Your task to perform on an android device: open wifi settings Image 0: 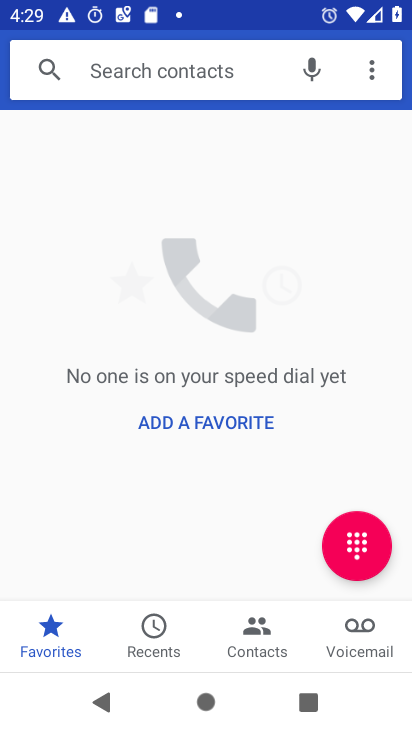
Step 0: press home button
Your task to perform on an android device: open wifi settings Image 1: 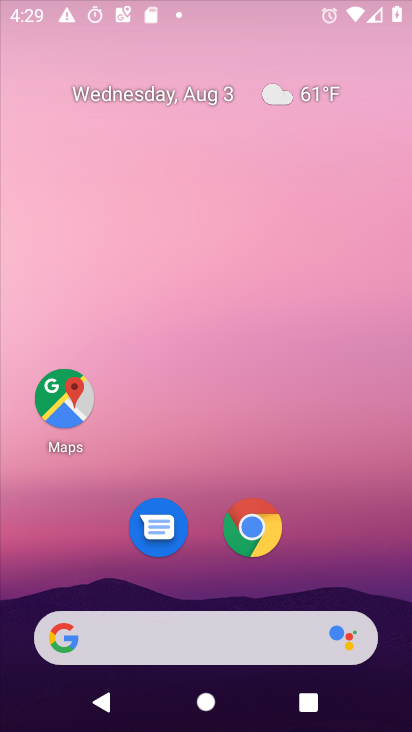
Step 1: drag from (306, 540) to (365, 58)
Your task to perform on an android device: open wifi settings Image 2: 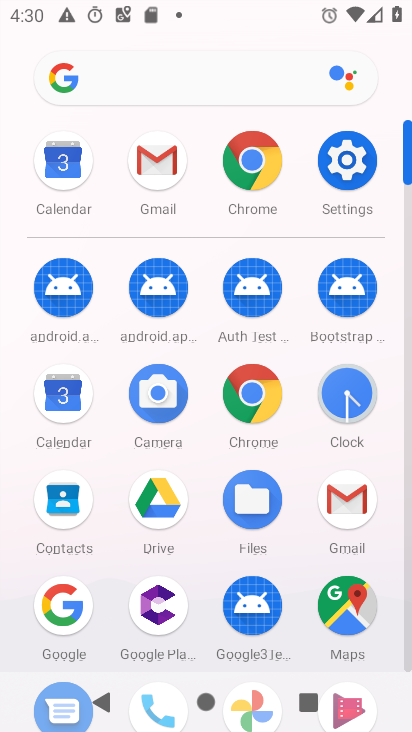
Step 2: click (359, 161)
Your task to perform on an android device: open wifi settings Image 3: 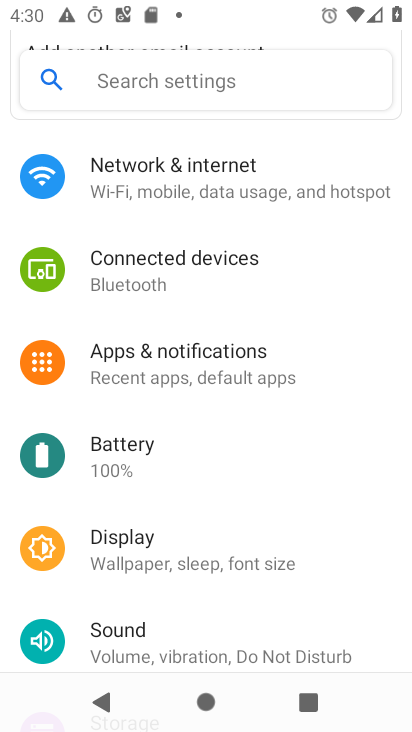
Step 3: click (212, 177)
Your task to perform on an android device: open wifi settings Image 4: 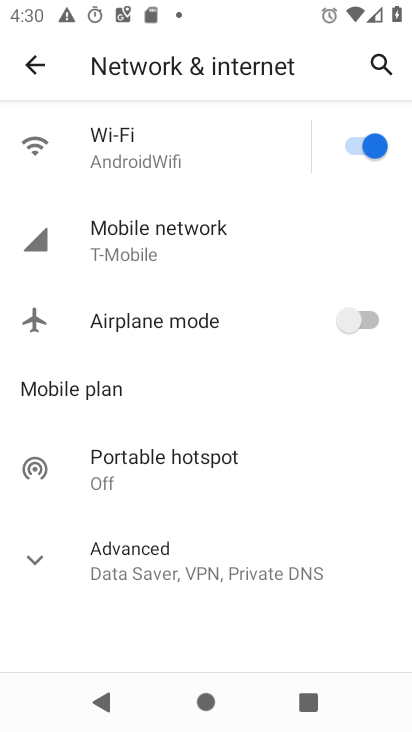
Step 4: click (191, 132)
Your task to perform on an android device: open wifi settings Image 5: 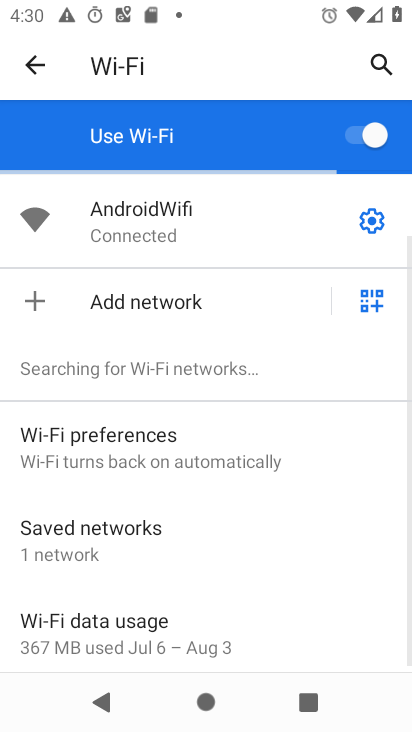
Step 5: click (356, 218)
Your task to perform on an android device: open wifi settings Image 6: 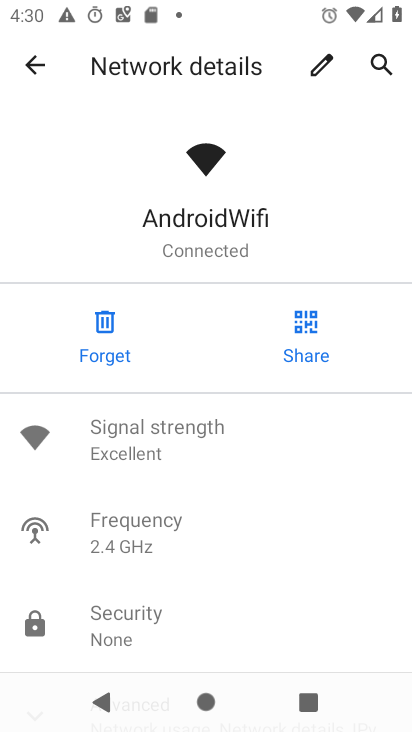
Step 6: task complete